Your task to perform on an android device: Search for pizza restaurants on Maps Image 0: 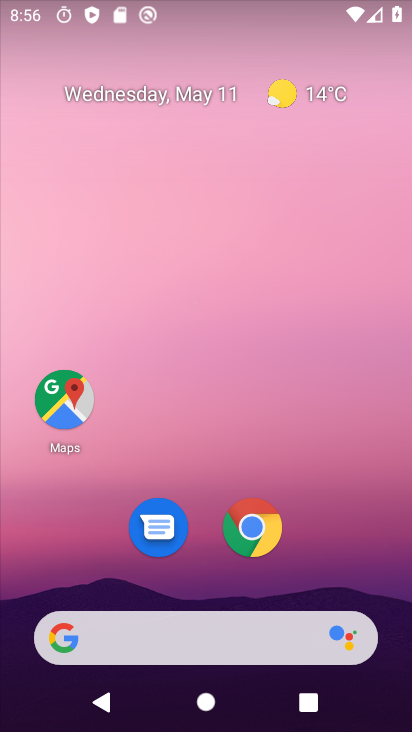
Step 0: drag from (177, 442) to (175, 77)
Your task to perform on an android device: Search for pizza restaurants on Maps Image 1: 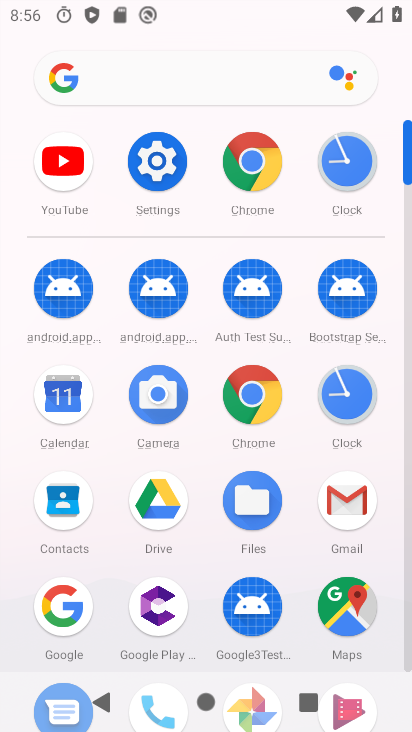
Step 1: click (365, 597)
Your task to perform on an android device: Search for pizza restaurants on Maps Image 2: 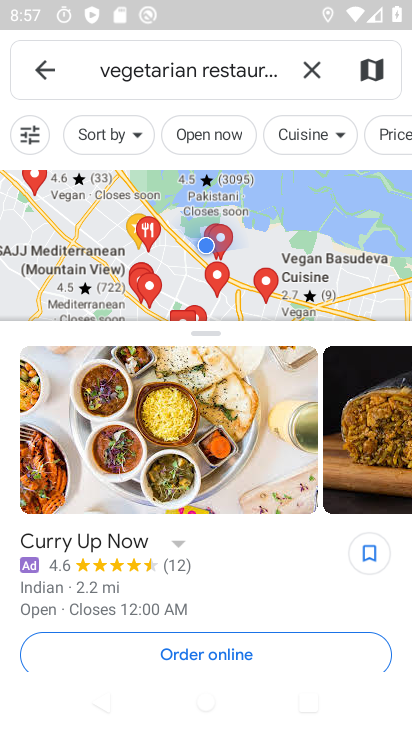
Step 2: click (307, 70)
Your task to perform on an android device: Search for pizza restaurants on Maps Image 3: 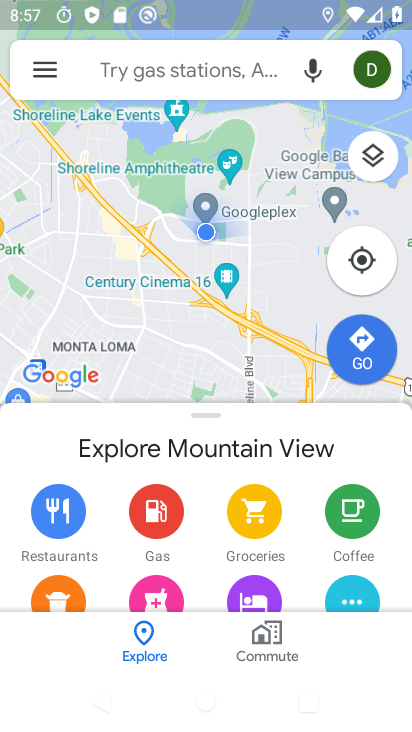
Step 3: click (139, 60)
Your task to perform on an android device: Search for pizza restaurants on Maps Image 4: 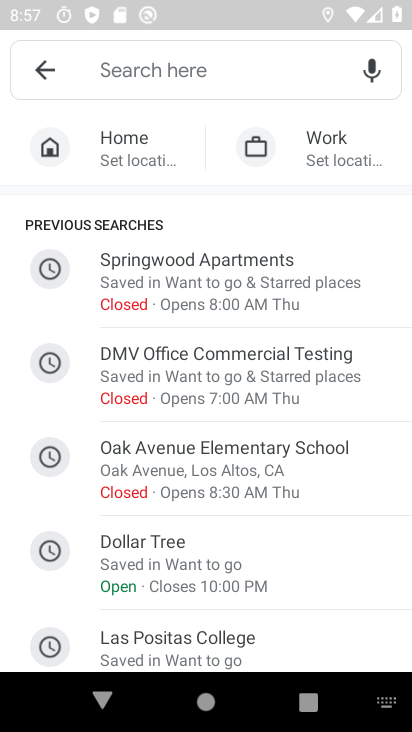
Step 4: type "pizza restaurants"
Your task to perform on an android device: Search for pizza restaurants on Maps Image 5: 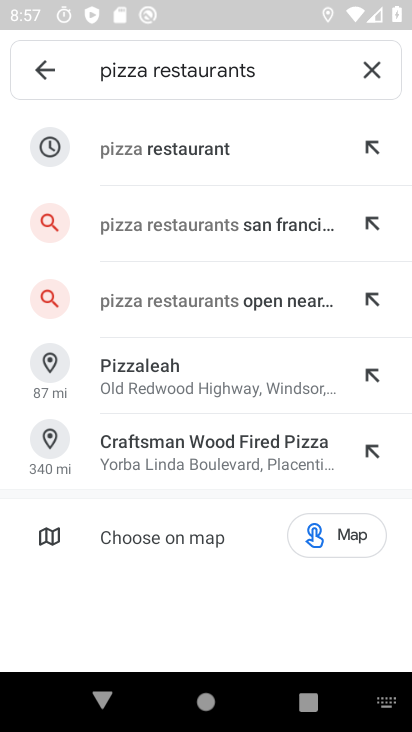
Step 5: click (215, 157)
Your task to perform on an android device: Search for pizza restaurants on Maps Image 6: 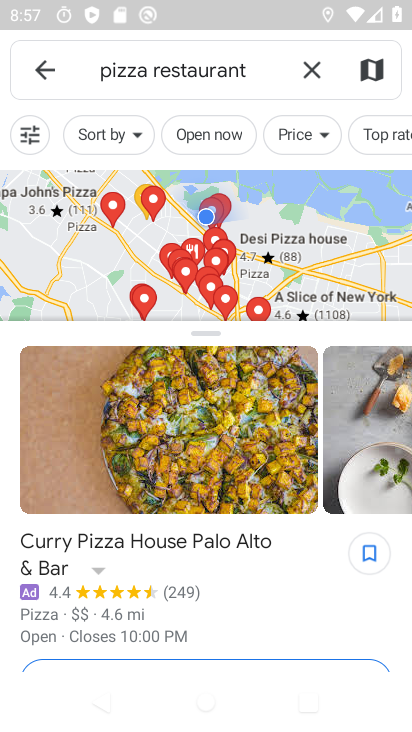
Step 6: task complete